Your task to perform on an android device: change alarm snooze length Image 0: 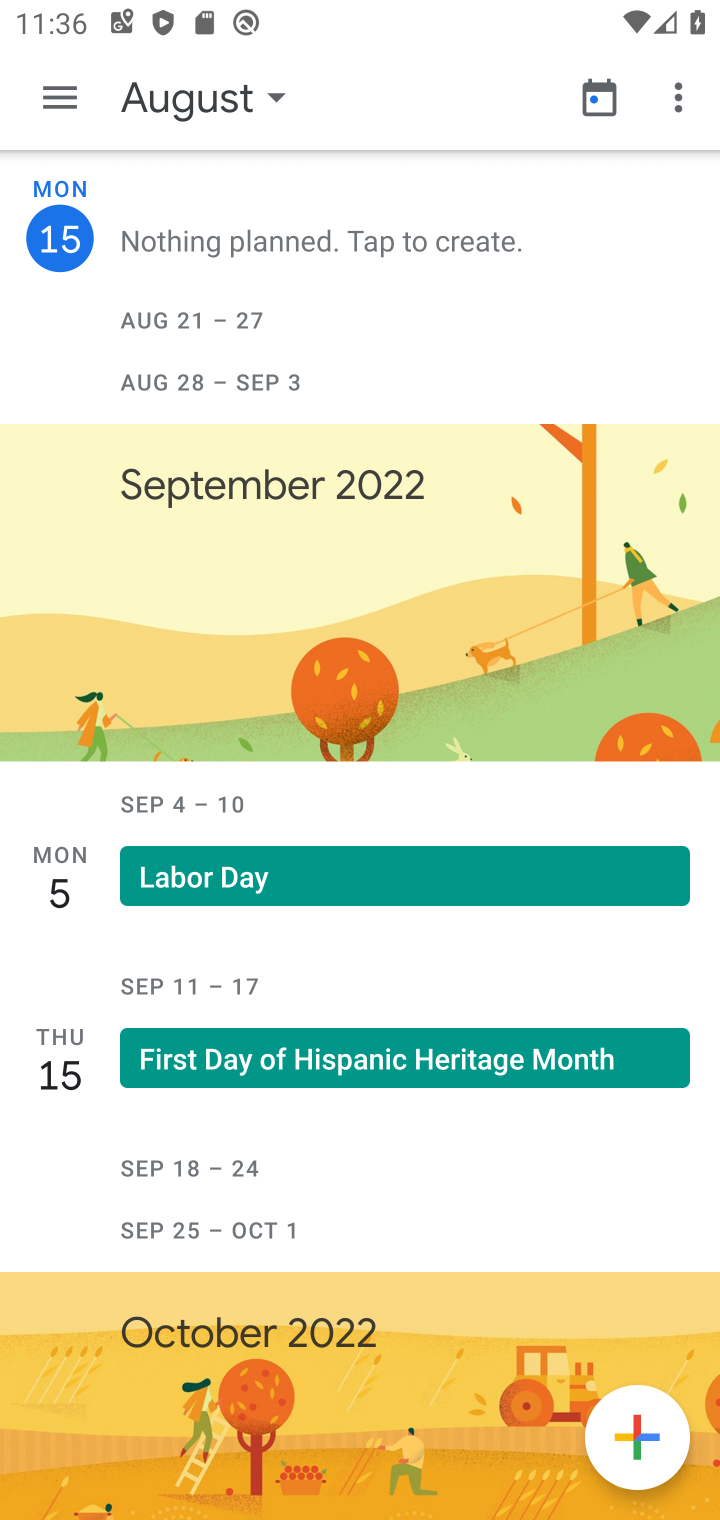
Step 0: press home button
Your task to perform on an android device: change alarm snooze length Image 1: 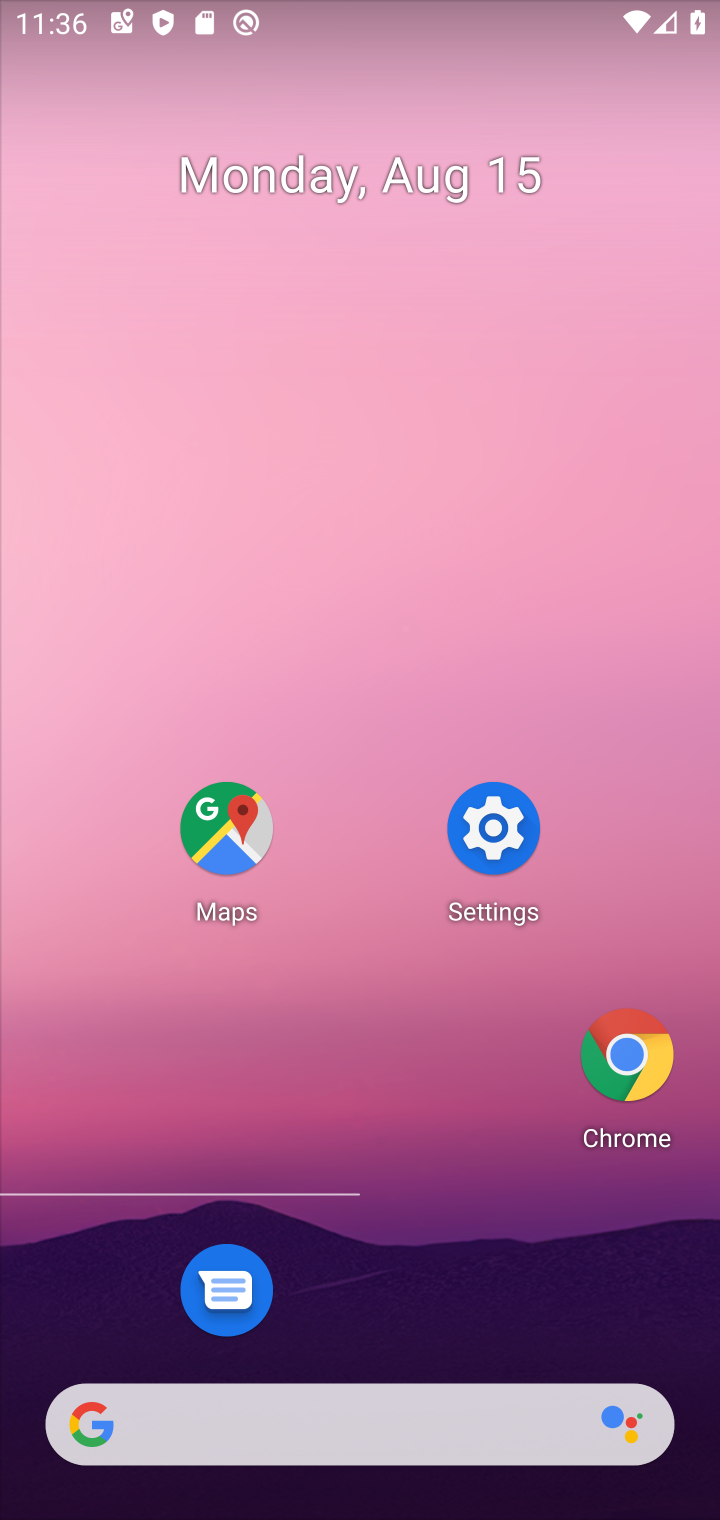
Step 1: drag from (401, 1285) to (639, 149)
Your task to perform on an android device: change alarm snooze length Image 2: 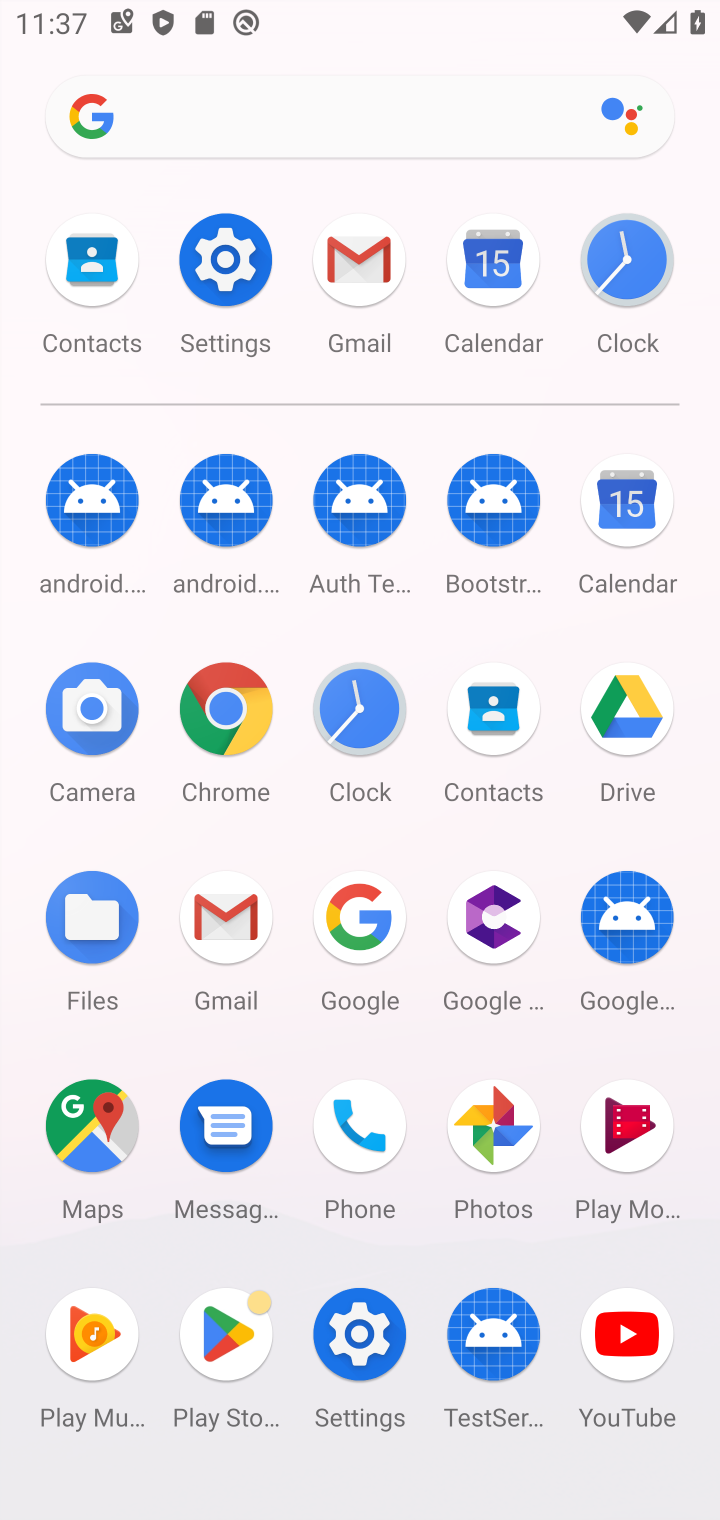
Step 2: click (616, 271)
Your task to perform on an android device: change alarm snooze length Image 3: 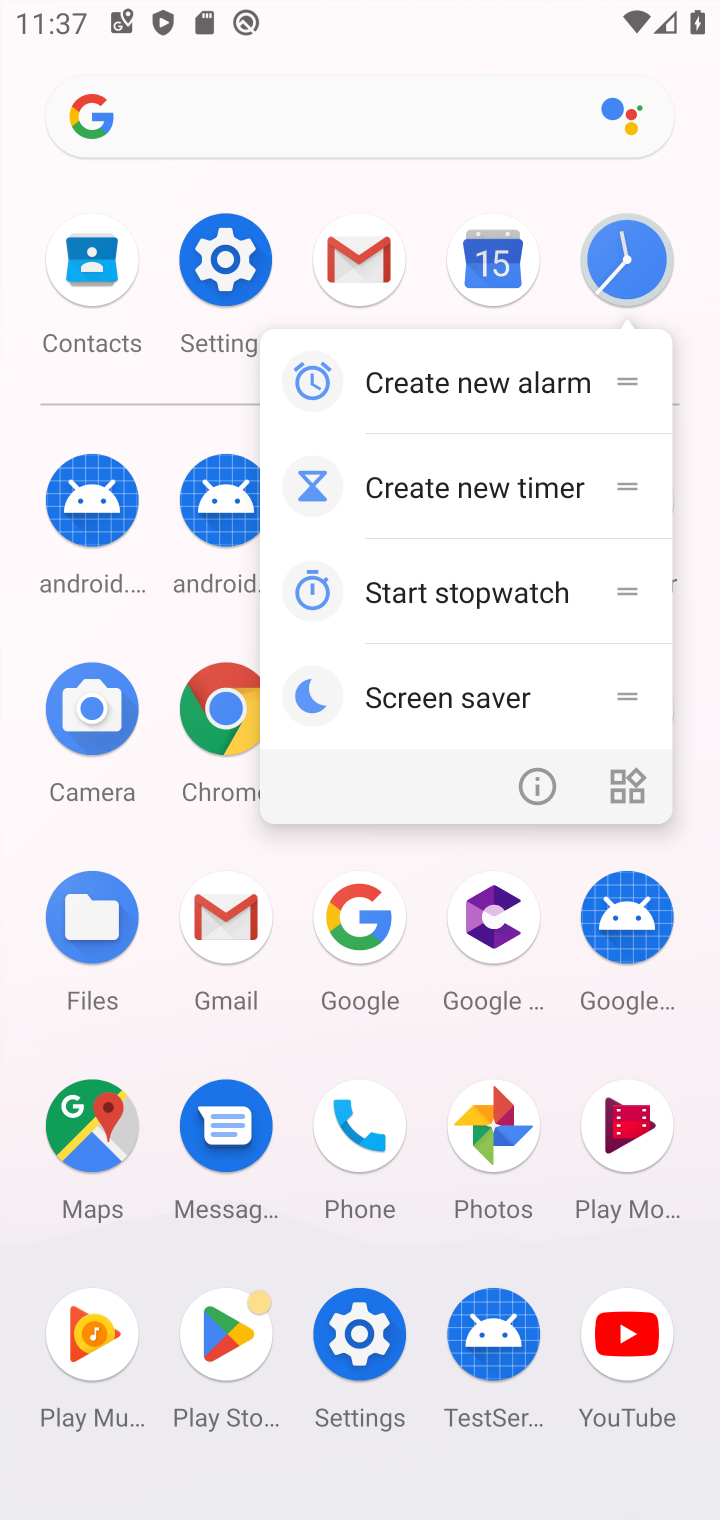
Step 3: click (629, 250)
Your task to perform on an android device: change alarm snooze length Image 4: 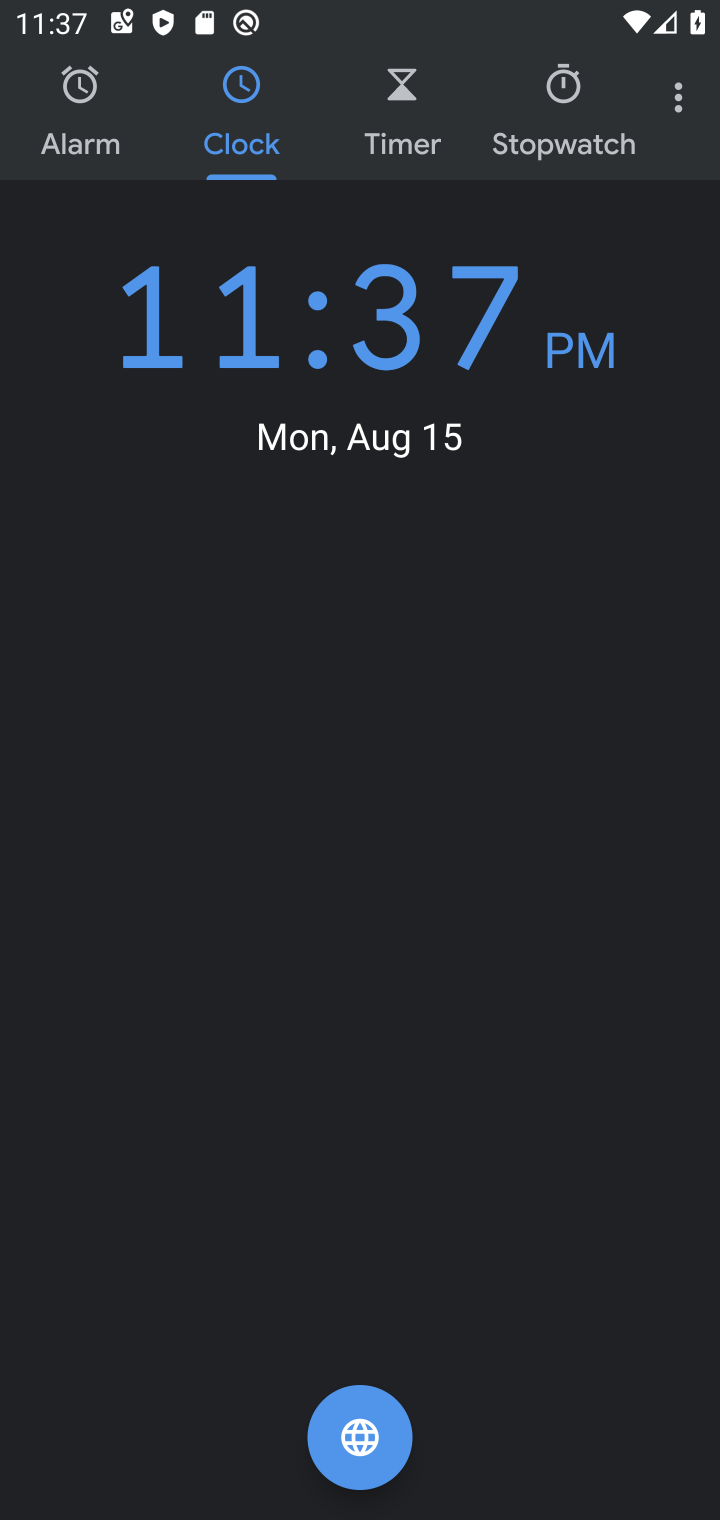
Step 4: click (668, 88)
Your task to perform on an android device: change alarm snooze length Image 5: 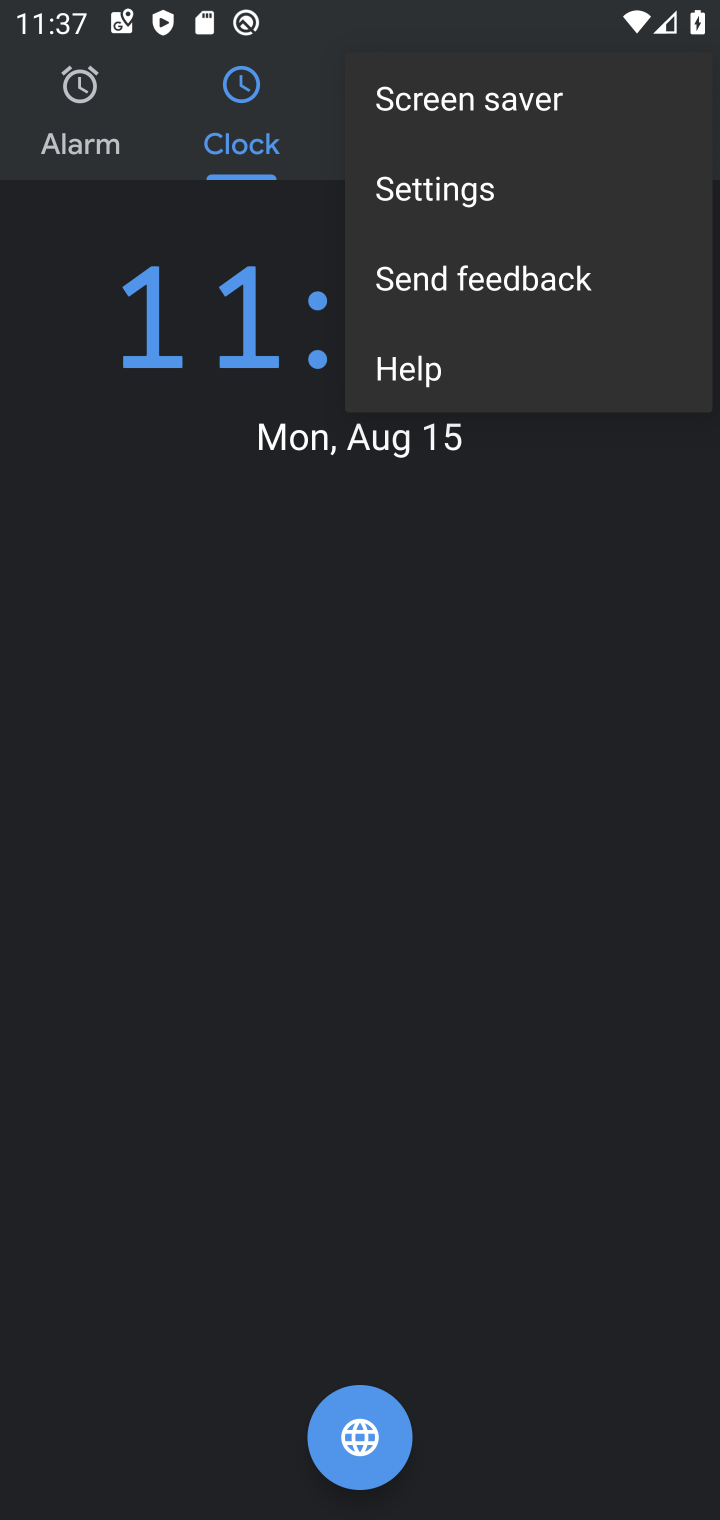
Step 5: click (476, 195)
Your task to perform on an android device: change alarm snooze length Image 6: 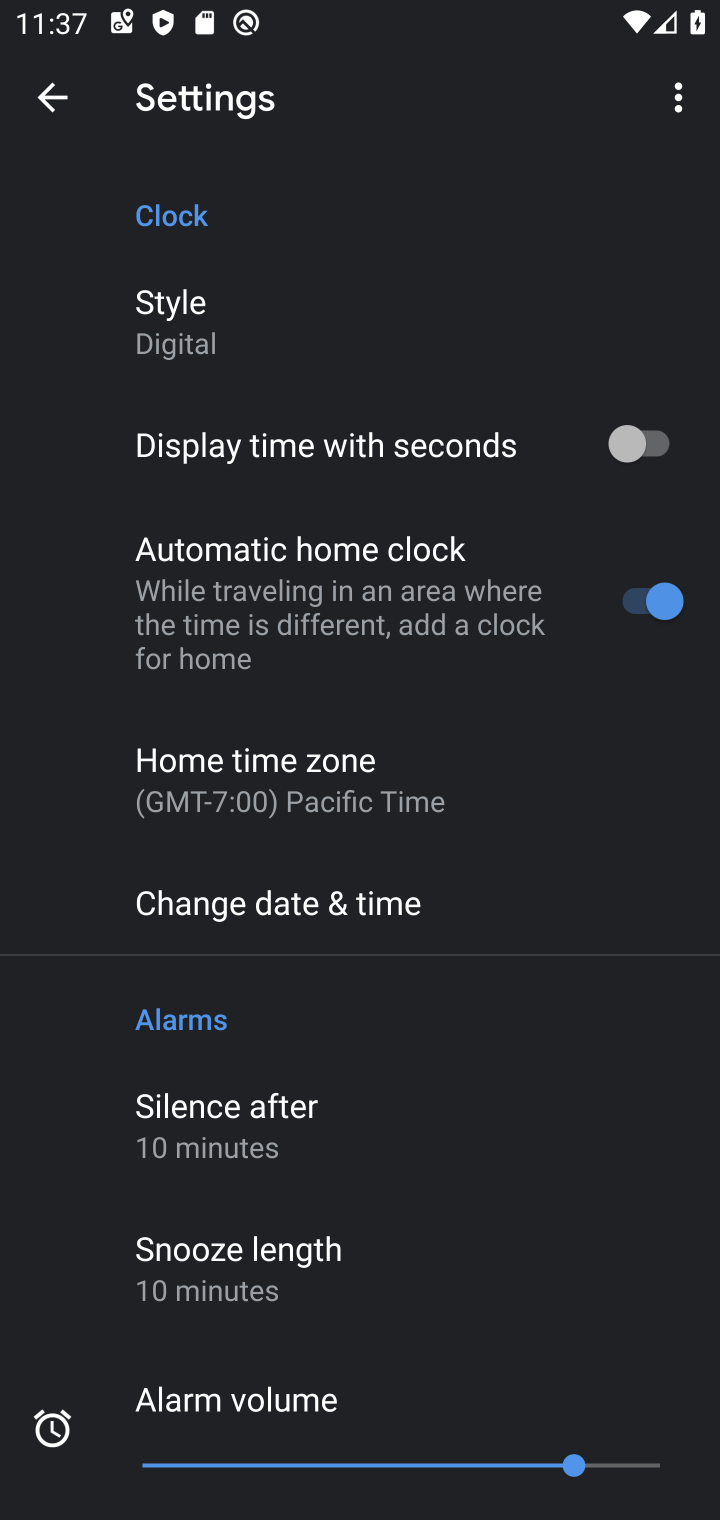
Step 6: click (298, 1274)
Your task to perform on an android device: change alarm snooze length Image 7: 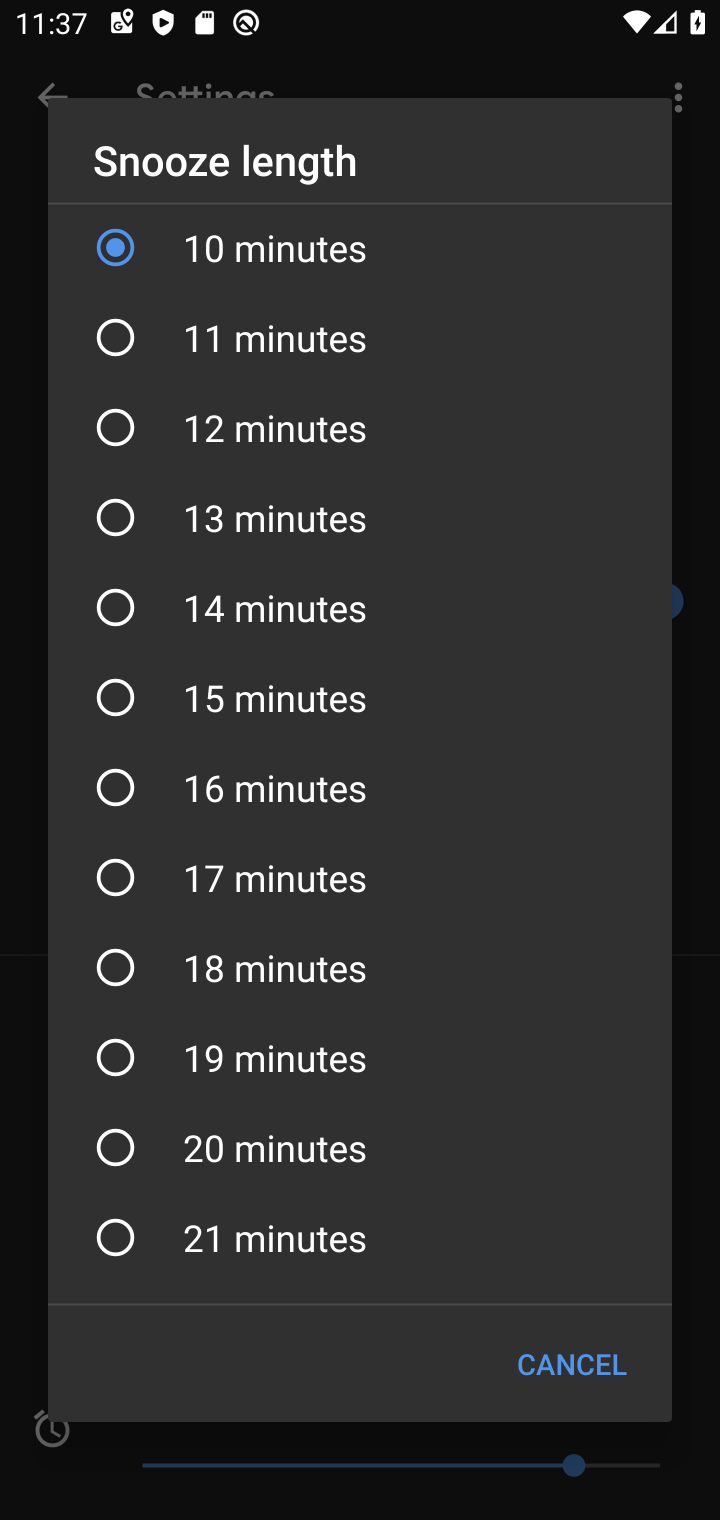
Step 7: click (128, 692)
Your task to perform on an android device: change alarm snooze length Image 8: 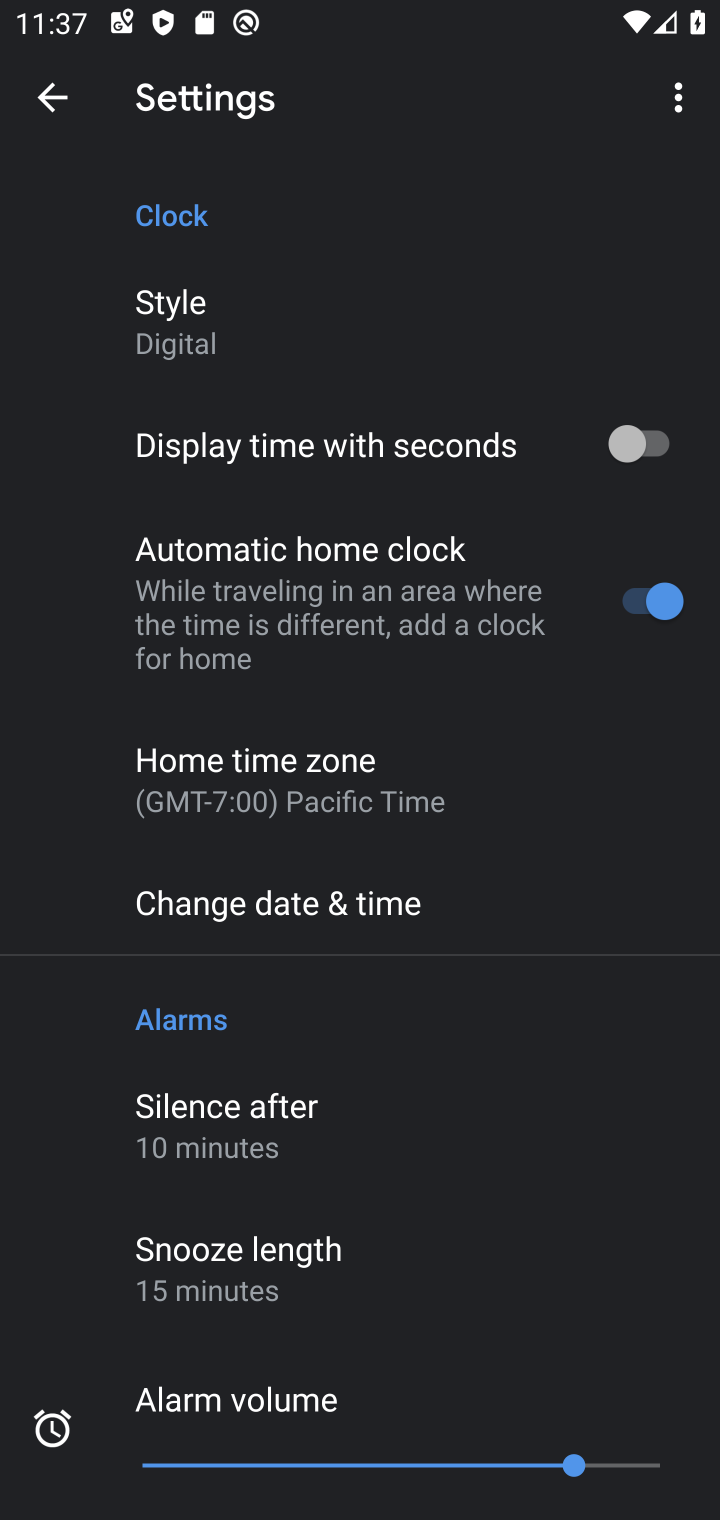
Step 8: task complete